Your task to perform on an android device: Open calendar and show me the second week of next month Image 0: 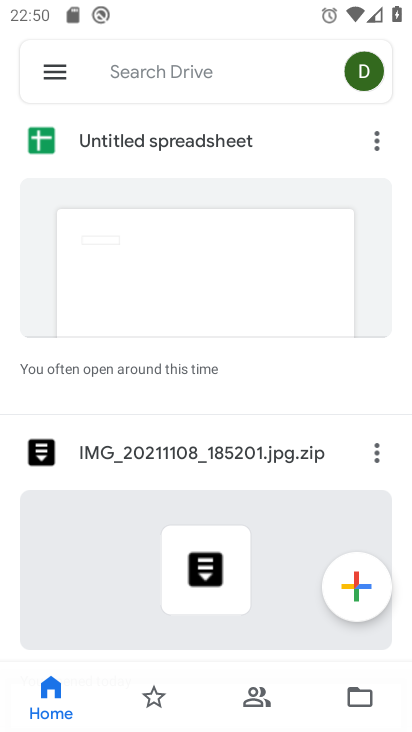
Step 0: press home button
Your task to perform on an android device: Open calendar and show me the second week of next month Image 1: 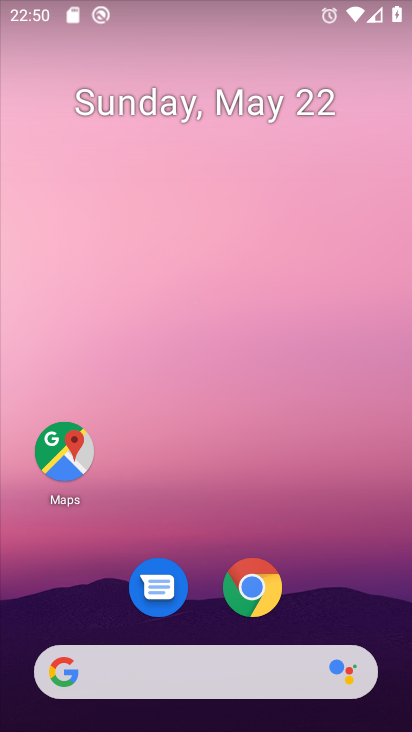
Step 1: drag from (203, 549) to (215, 51)
Your task to perform on an android device: Open calendar and show me the second week of next month Image 2: 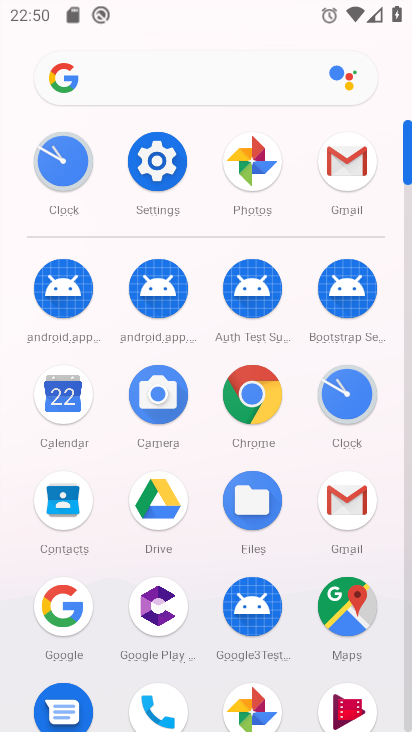
Step 2: click (63, 407)
Your task to perform on an android device: Open calendar and show me the second week of next month Image 3: 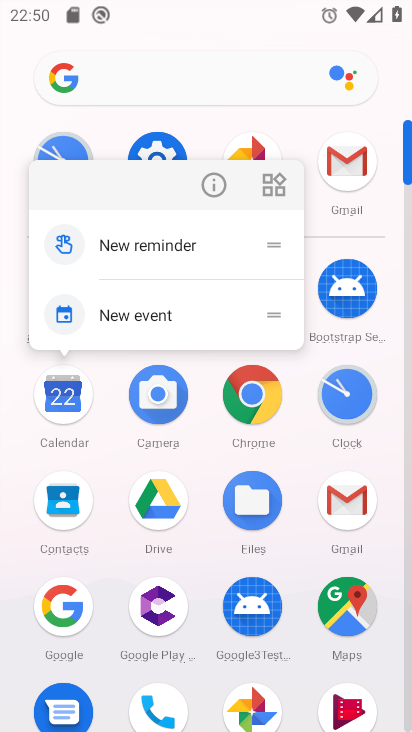
Step 3: click (63, 404)
Your task to perform on an android device: Open calendar and show me the second week of next month Image 4: 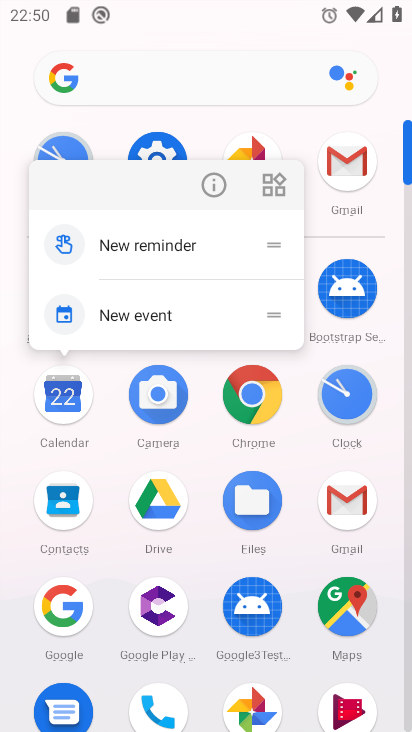
Step 4: click (63, 404)
Your task to perform on an android device: Open calendar and show me the second week of next month Image 5: 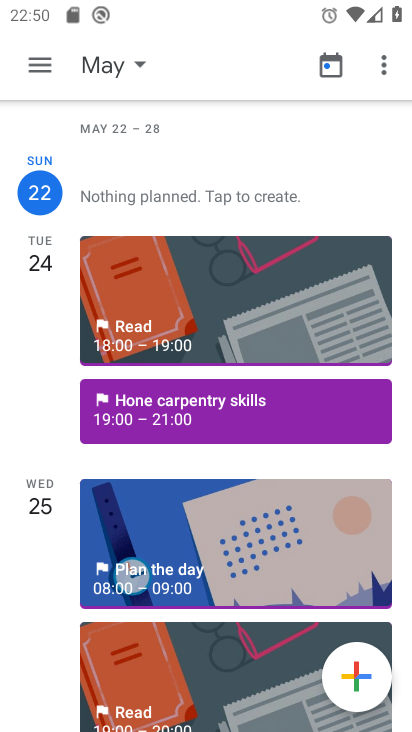
Step 5: click (50, 61)
Your task to perform on an android device: Open calendar and show me the second week of next month Image 6: 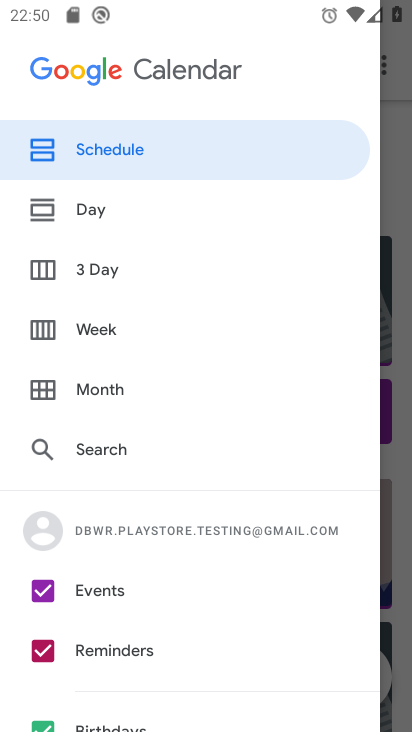
Step 6: click (44, 326)
Your task to perform on an android device: Open calendar and show me the second week of next month Image 7: 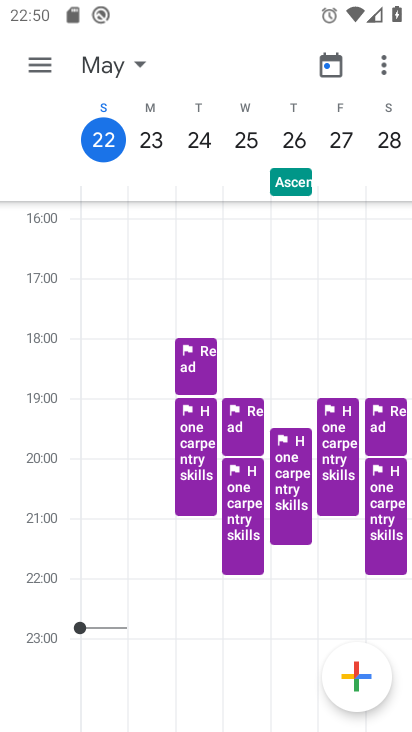
Step 7: task complete